Your task to perform on an android device: open app "Pandora - Music & Podcasts" Image 0: 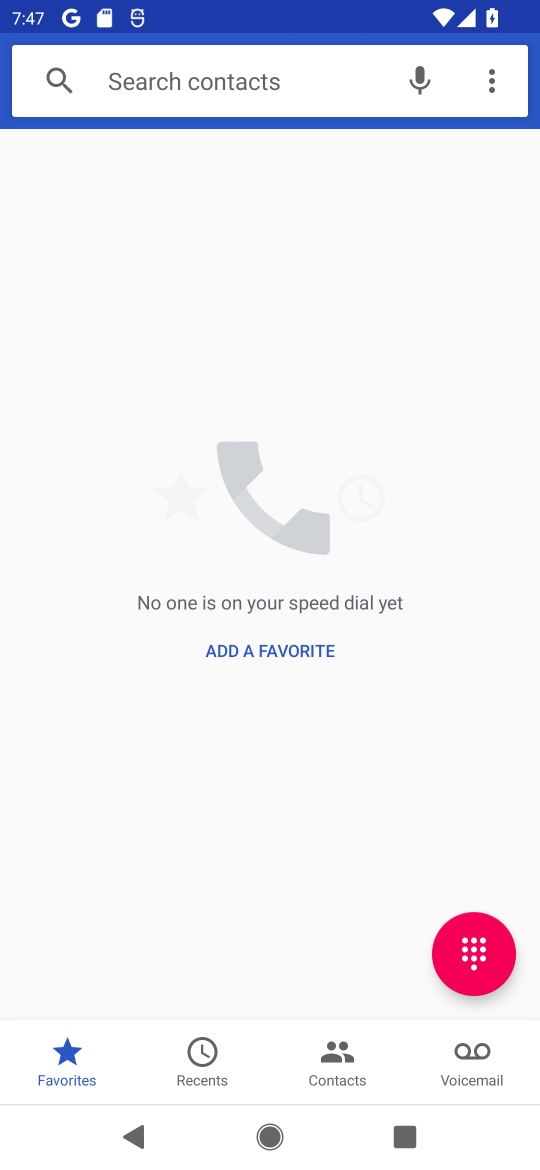
Step 0: press home button
Your task to perform on an android device: open app "Pandora - Music & Podcasts" Image 1: 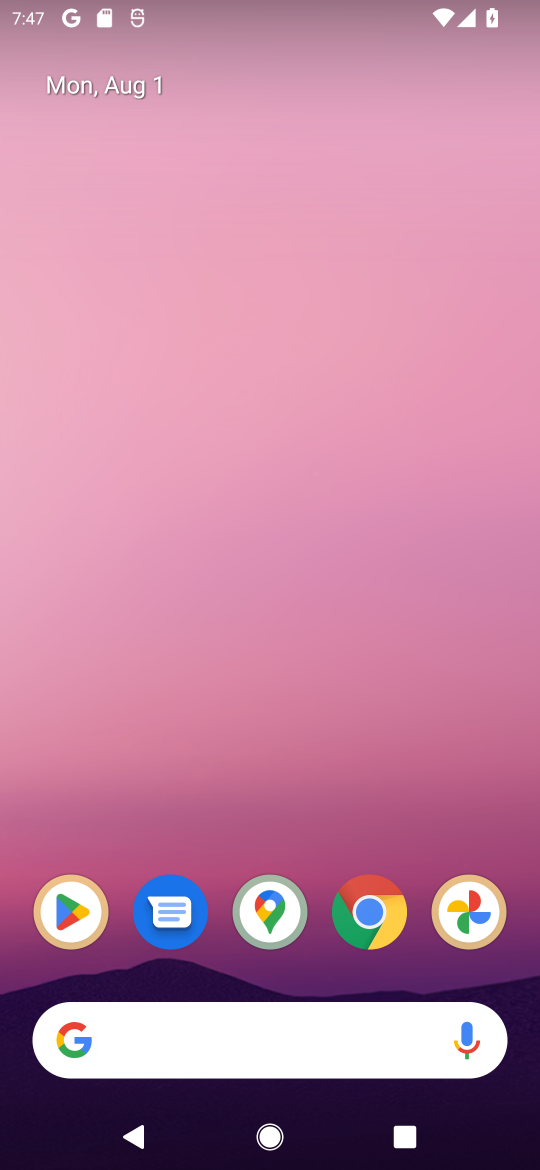
Step 1: drag from (344, 1011) to (397, 29)
Your task to perform on an android device: open app "Pandora - Music & Podcasts" Image 2: 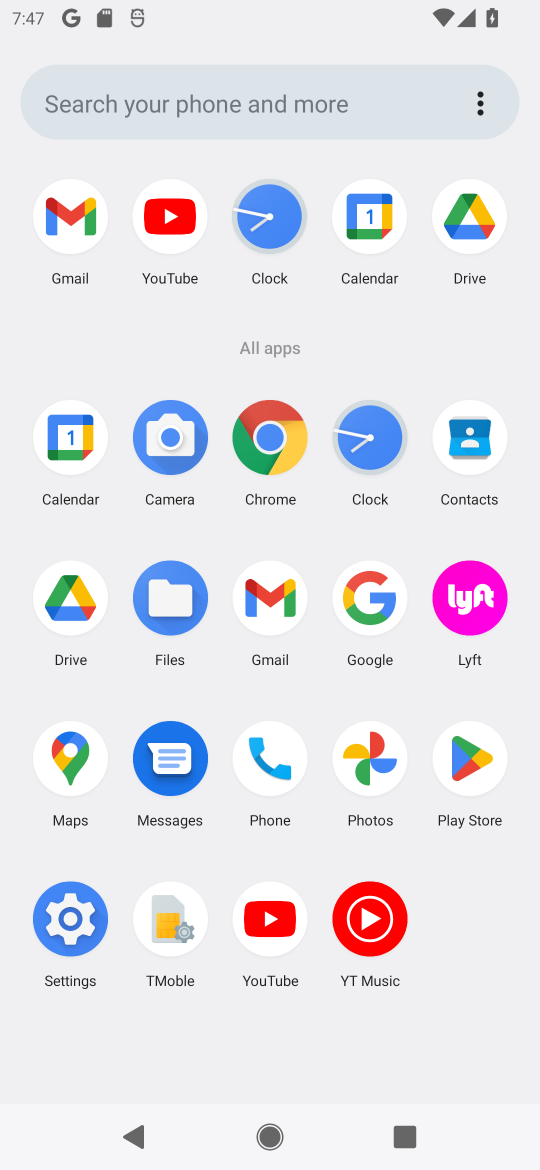
Step 2: click (473, 772)
Your task to perform on an android device: open app "Pandora - Music & Podcasts" Image 3: 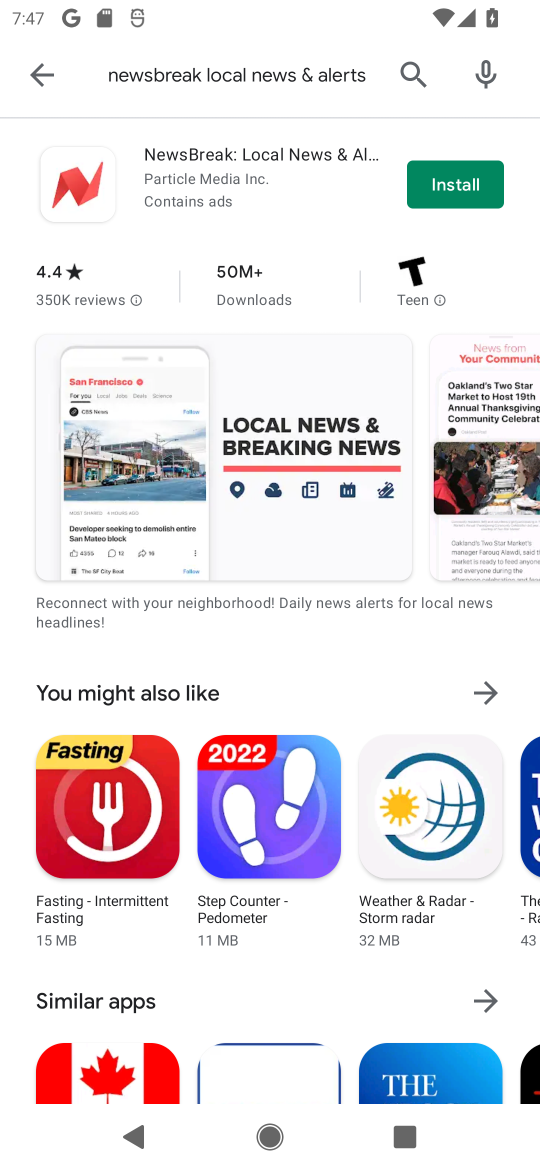
Step 3: click (32, 70)
Your task to perform on an android device: open app "Pandora - Music & Podcasts" Image 4: 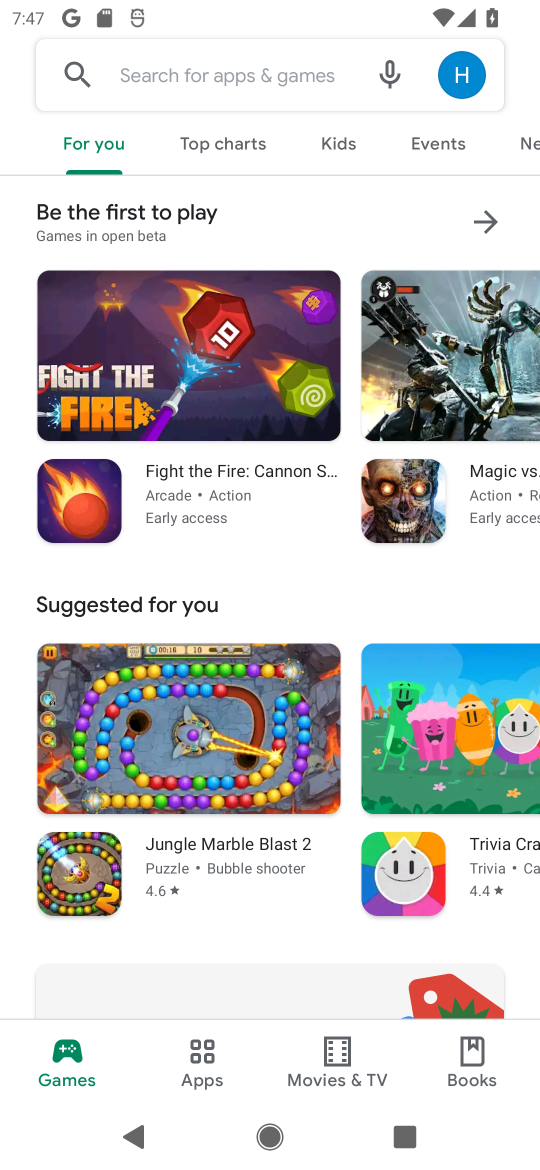
Step 4: click (224, 83)
Your task to perform on an android device: open app "Pandora - Music & Podcasts" Image 5: 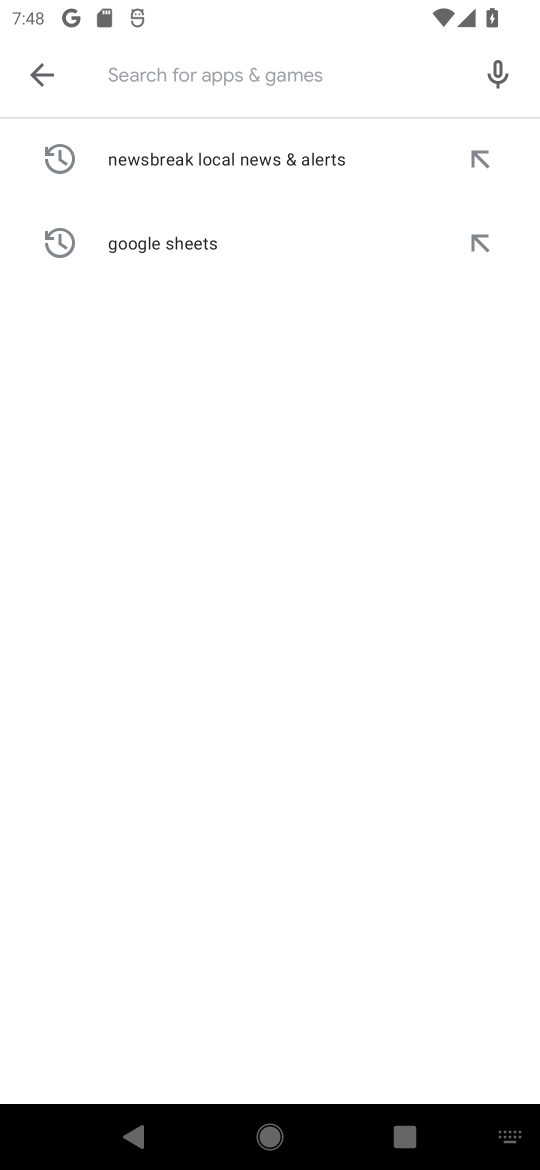
Step 5: type "Pandora - Music & Podcasts"
Your task to perform on an android device: open app "Pandora - Music & Podcasts" Image 6: 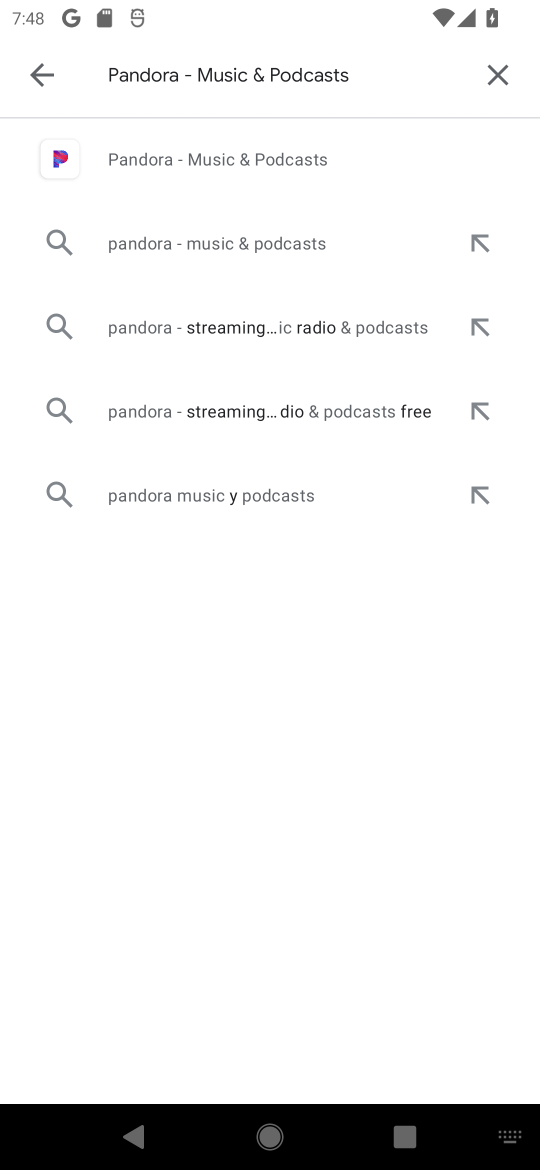
Step 6: click (235, 155)
Your task to perform on an android device: open app "Pandora - Music & Podcasts" Image 7: 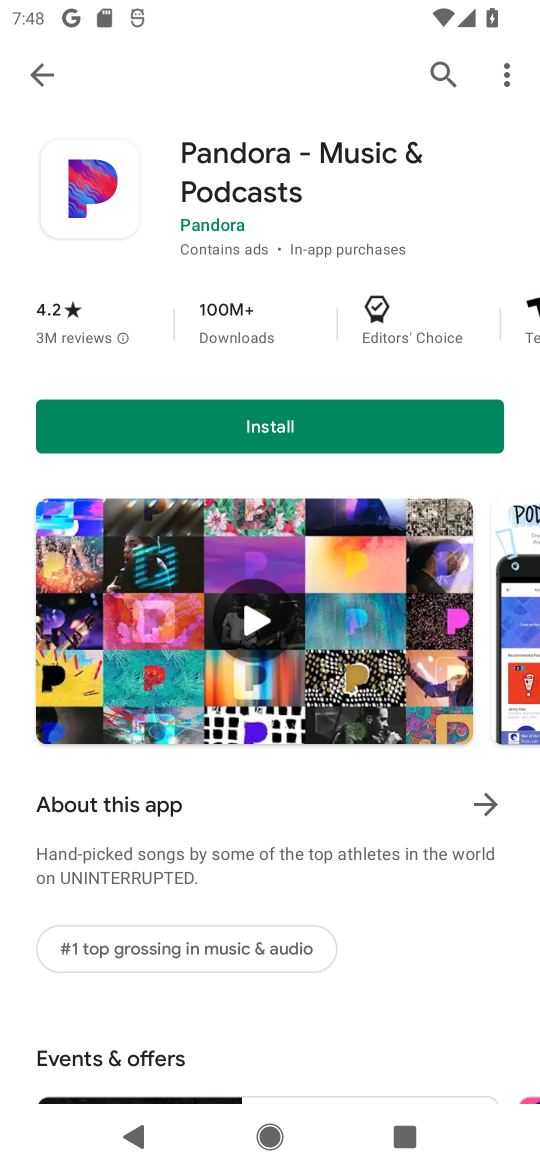
Step 7: click (263, 424)
Your task to perform on an android device: open app "Pandora - Music & Podcasts" Image 8: 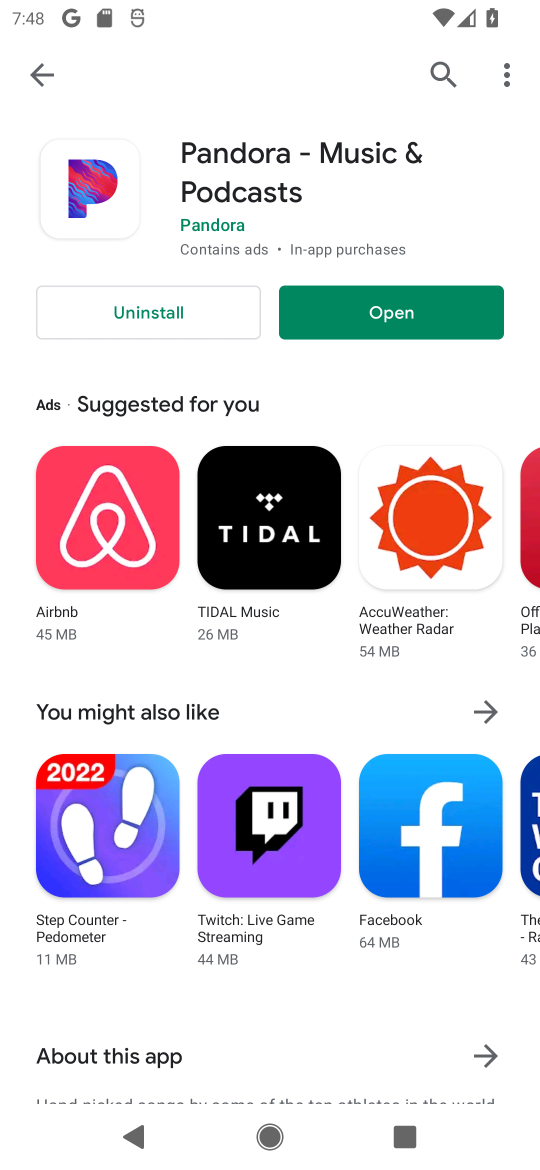
Step 8: click (369, 312)
Your task to perform on an android device: open app "Pandora - Music & Podcasts" Image 9: 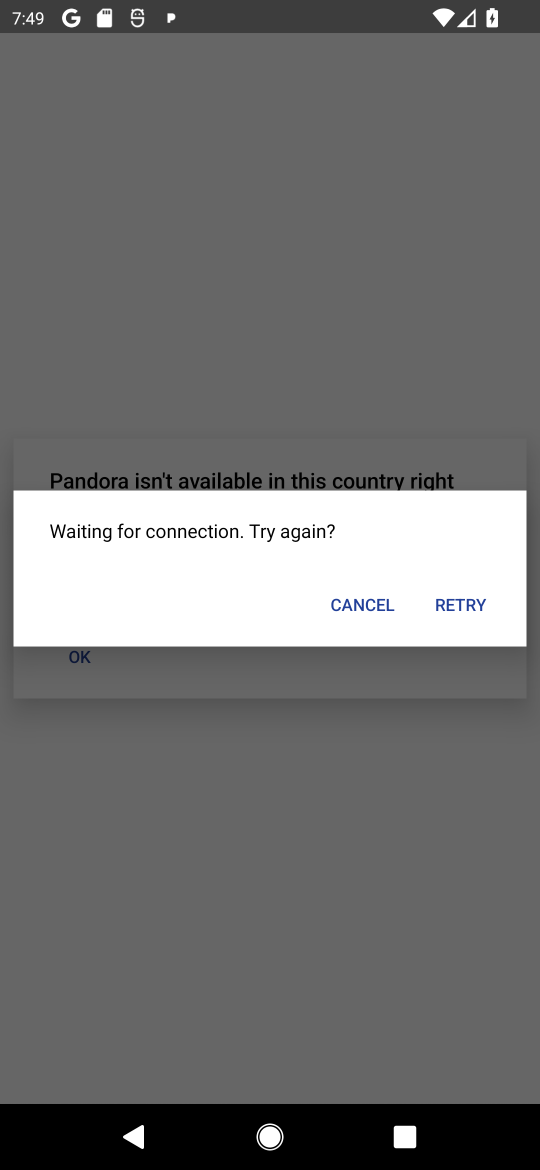
Step 9: task complete